Your task to perform on an android device: change the upload size in google photos Image 0: 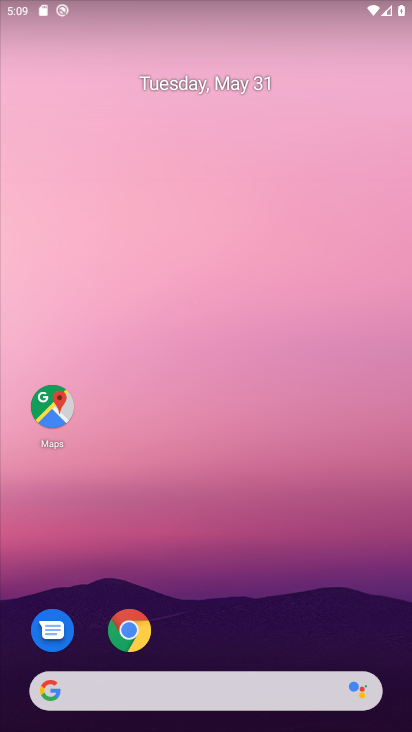
Step 0: drag from (246, 578) to (225, 198)
Your task to perform on an android device: change the upload size in google photos Image 1: 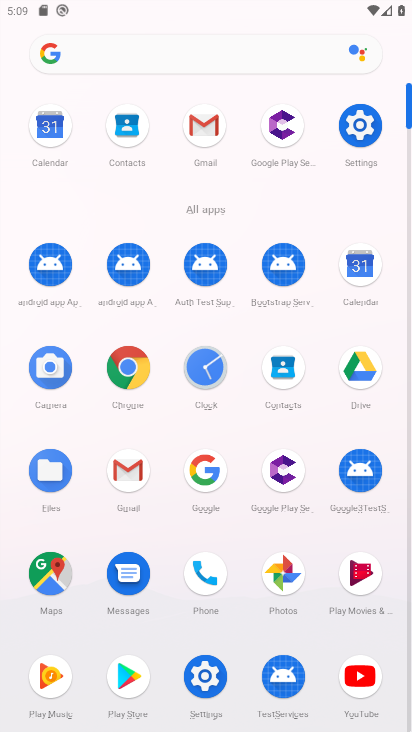
Step 1: click (297, 581)
Your task to perform on an android device: change the upload size in google photos Image 2: 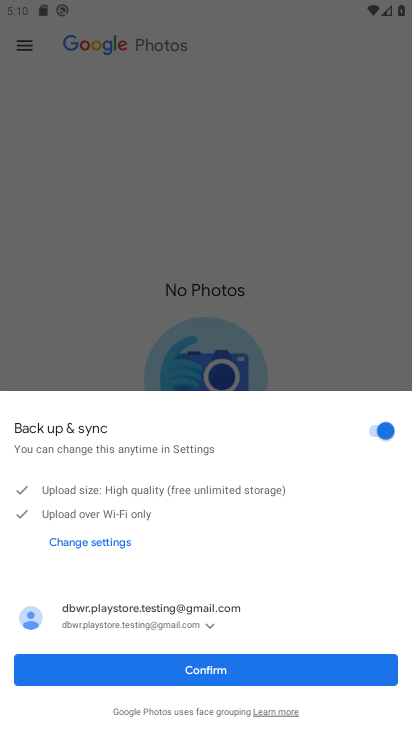
Step 2: click (218, 669)
Your task to perform on an android device: change the upload size in google photos Image 3: 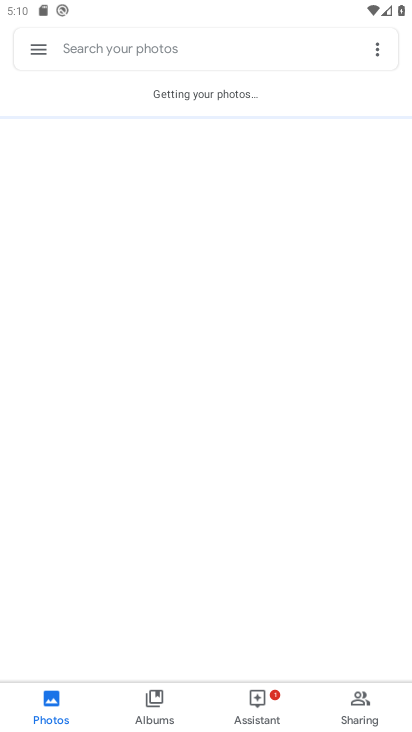
Step 3: task complete